Your task to perform on an android device: open device folders in google photos Image 0: 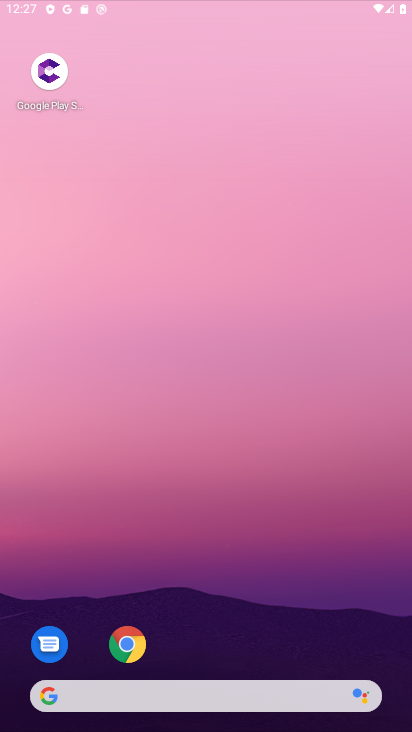
Step 0: click (236, 15)
Your task to perform on an android device: open device folders in google photos Image 1: 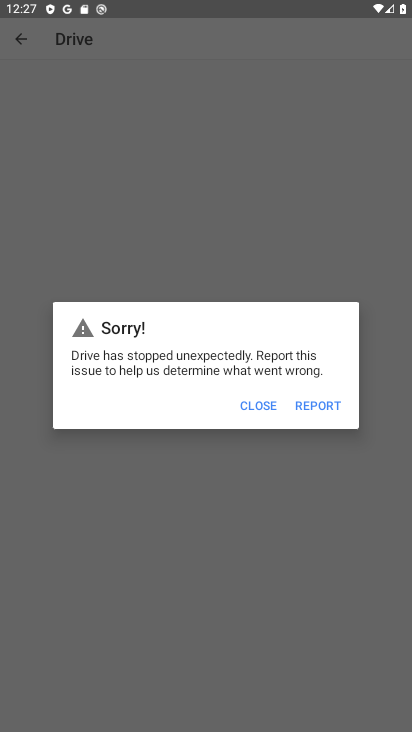
Step 1: press home button
Your task to perform on an android device: open device folders in google photos Image 2: 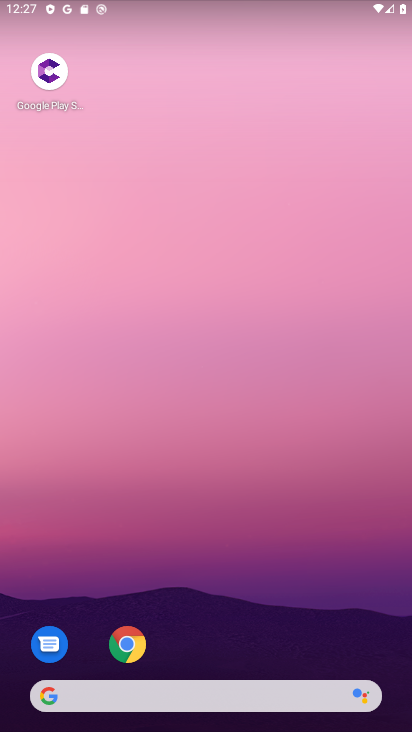
Step 2: drag from (196, 727) to (195, 58)
Your task to perform on an android device: open device folders in google photos Image 3: 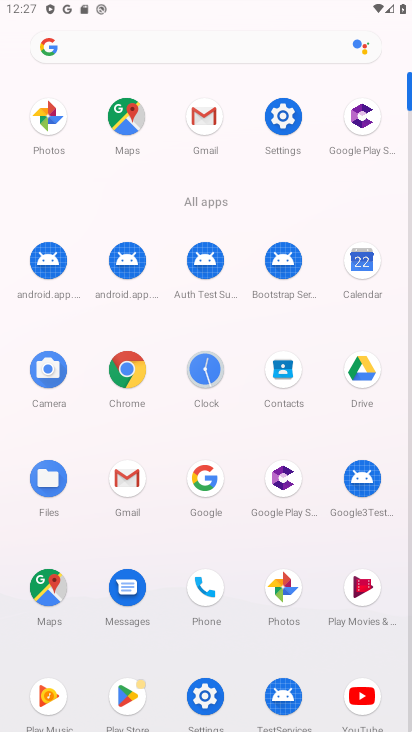
Step 3: click (283, 587)
Your task to perform on an android device: open device folders in google photos Image 4: 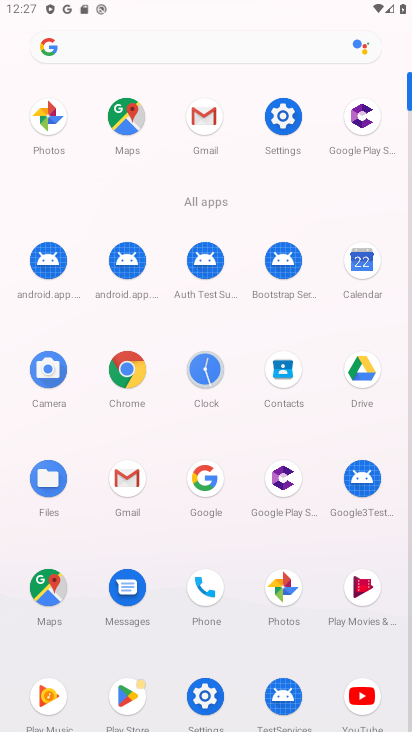
Step 4: click (283, 587)
Your task to perform on an android device: open device folders in google photos Image 5: 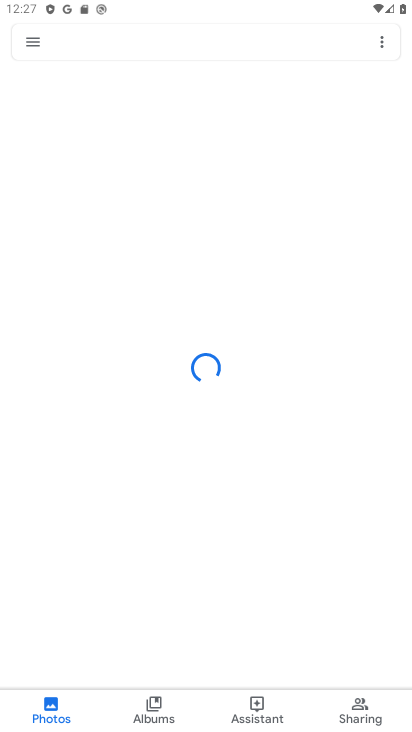
Step 5: click (38, 39)
Your task to perform on an android device: open device folders in google photos Image 6: 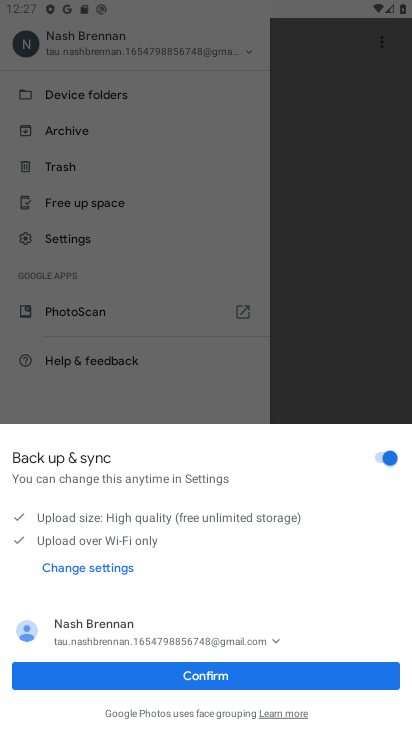
Step 6: click (157, 666)
Your task to perform on an android device: open device folders in google photos Image 7: 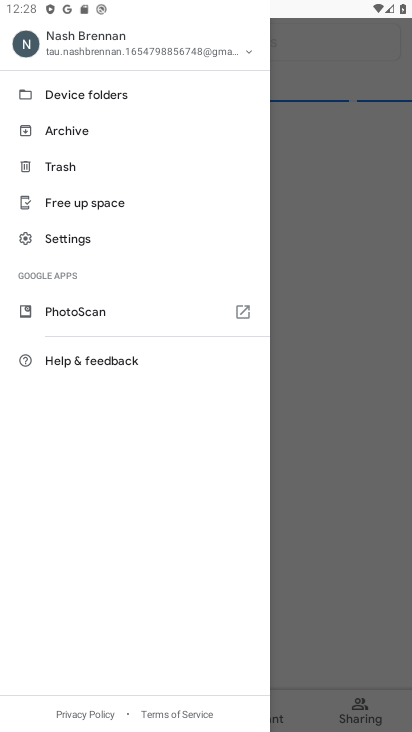
Step 7: click (108, 91)
Your task to perform on an android device: open device folders in google photos Image 8: 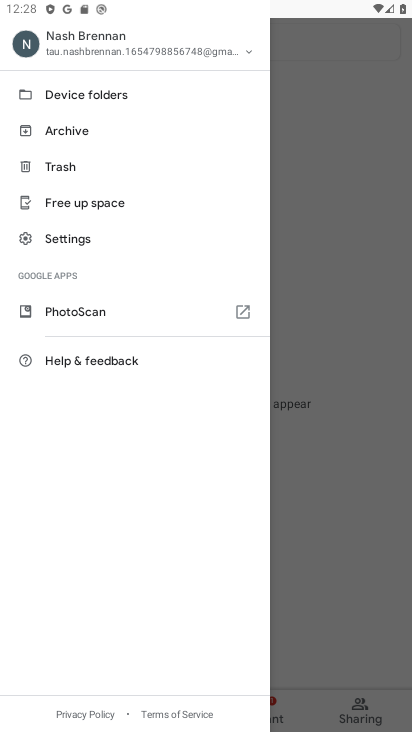
Step 8: click (108, 91)
Your task to perform on an android device: open device folders in google photos Image 9: 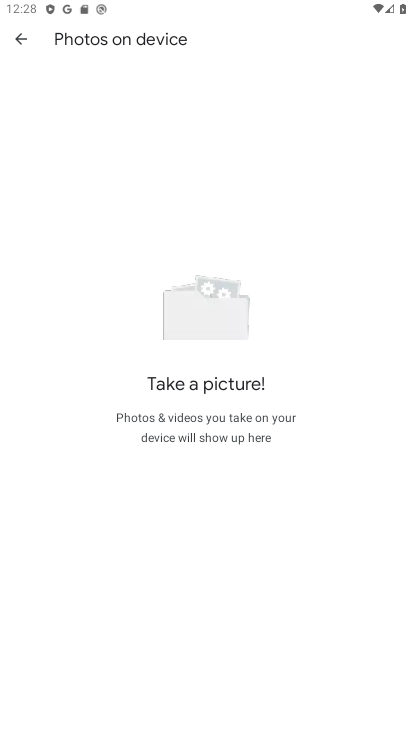
Step 9: task complete